Your task to perform on an android device: change the clock style Image 0: 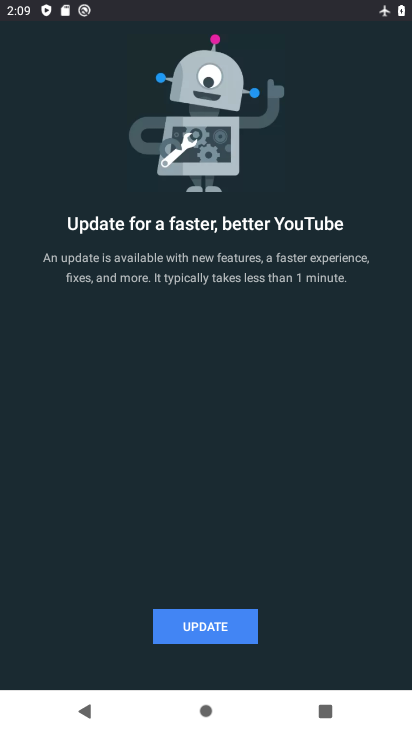
Step 0: press home button
Your task to perform on an android device: change the clock style Image 1: 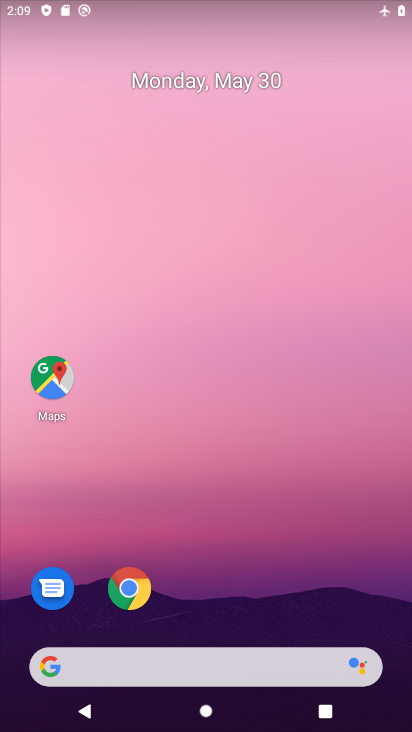
Step 1: drag from (210, 491) to (248, 244)
Your task to perform on an android device: change the clock style Image 2: 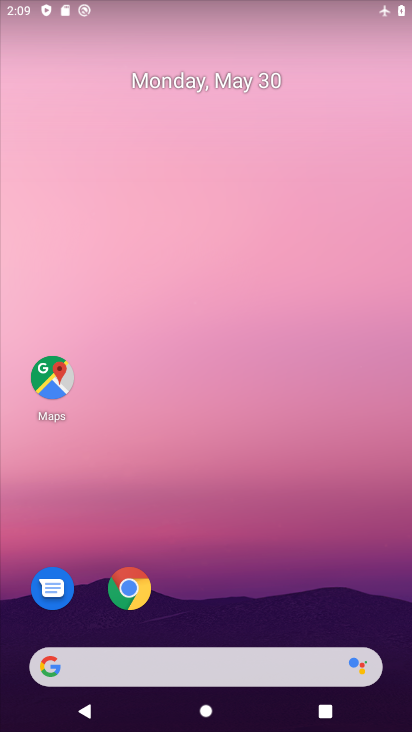
Step 2: drag from (192, 584) to (216, 254)
Your task to perform on an android device: change the clock style Image 3: 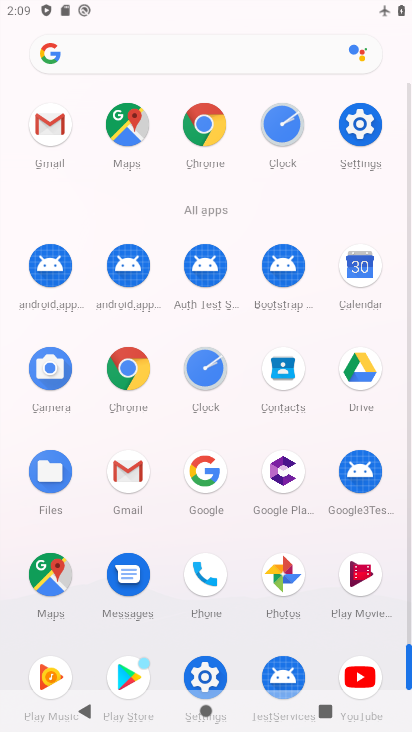
Step 3: click (274, 122)
Your task to perform on an android device: change the clock style Image 4: 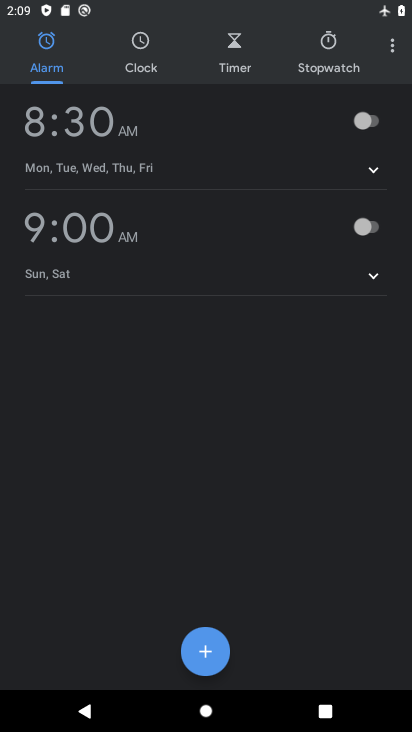
Step 4: click (385, 45)
Your task to perform on an android device: change the clock style Image 5: 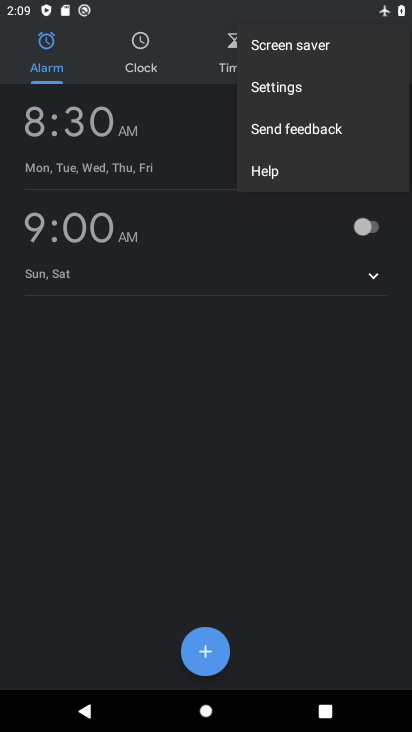
Step 5: click (280, 91)
Your task to perform on an android device: change the clock style Image 6: 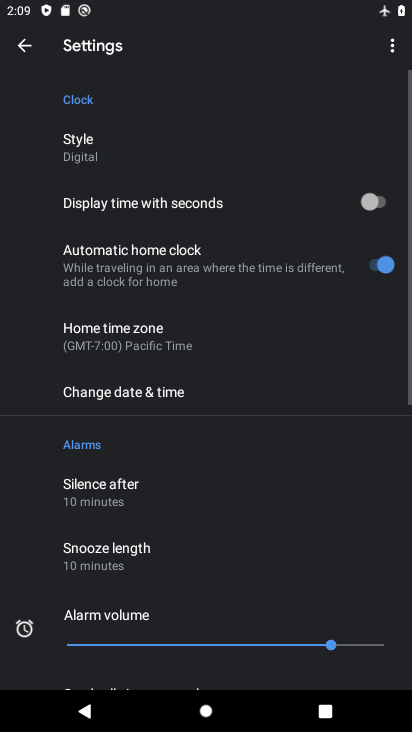
Step 6: click (107, 146)
Your task to perform on an android device: change the clock style Image 7: 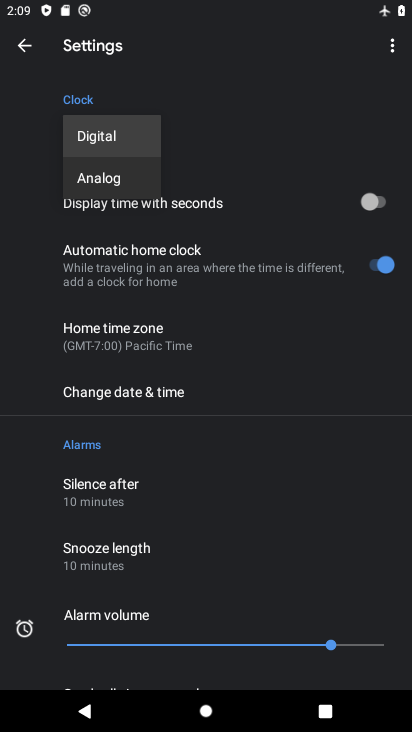
Step 7: click (112, 188)
Your task to perform on an android device: change the clock style Image 8: 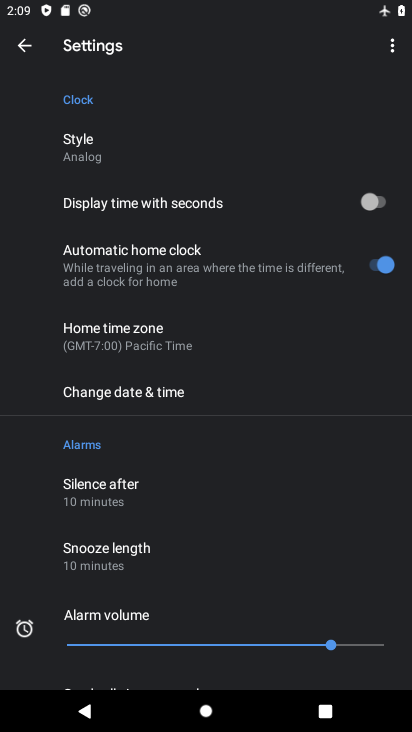
Step 8: task complete